Your task to perform on an android device: Do I have any events today? Image 0: 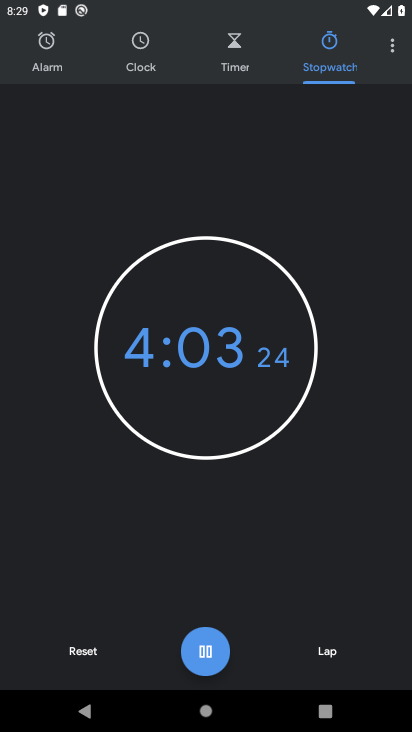
Step 0: press home button
Your task to perform on an android device: Do I have any events today? Image 1: 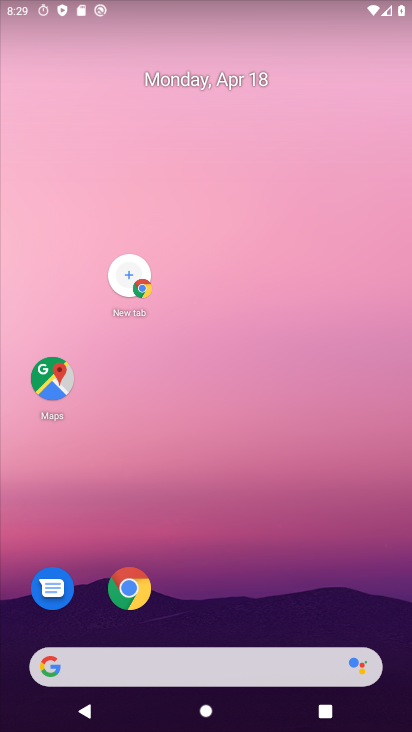
Step 1: drag from (272, 591) to (206, 185)
Your task to perform on an android device: Do I have any events today? Image 2: 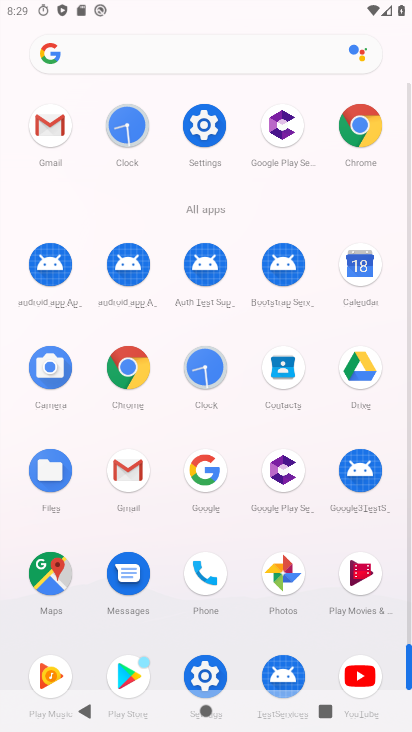
Step 2: click (363, 274)
Your task to perform on an android device: Do I have any events today? Image 3: 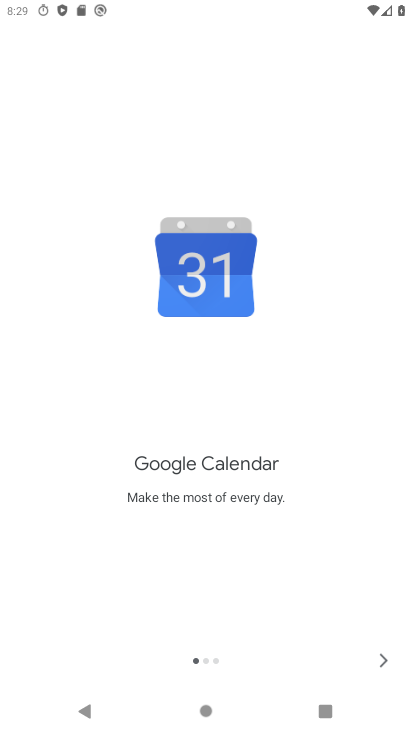
Step 3: click (381, 651)
Your task to perform on an android device: Do I have any events today? Image 4: 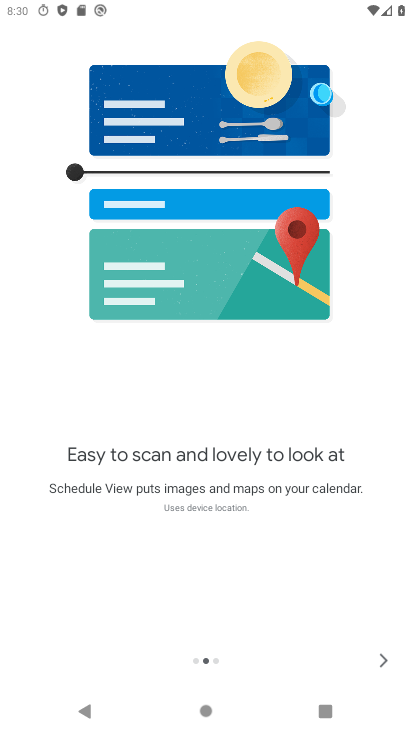
Step 4: click (386, 667)
Your task to perform on an android device: Do I have any events today? Image 5: 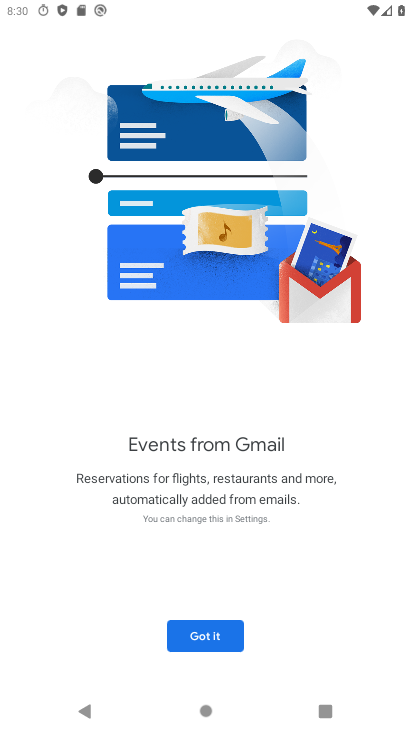
Step 5: click (228, 629)
Your task to perform on an android device: Do I have any events today? Image 6: 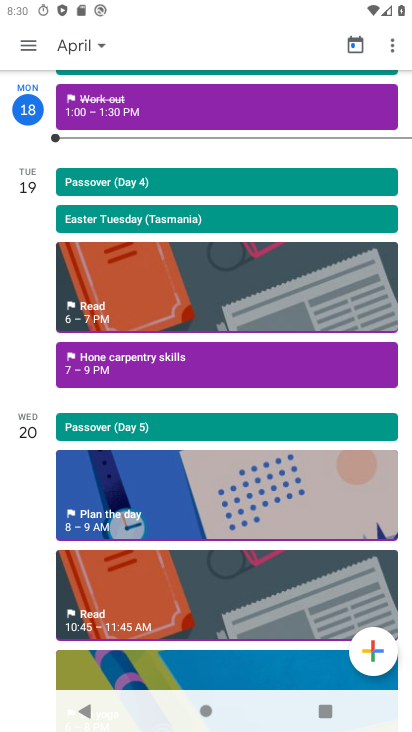
Step 6: drag from (185, 89) to (163, 481)
Your task to perform on an android device: Do I have any events today? Image 7: 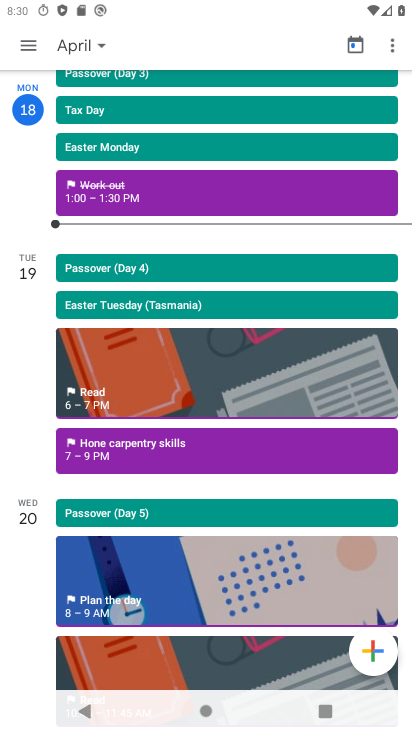
Step 7: drag from (275, 290) to (313, 531)
Your task to perform on an android device: Do I have any events today? Image 8: 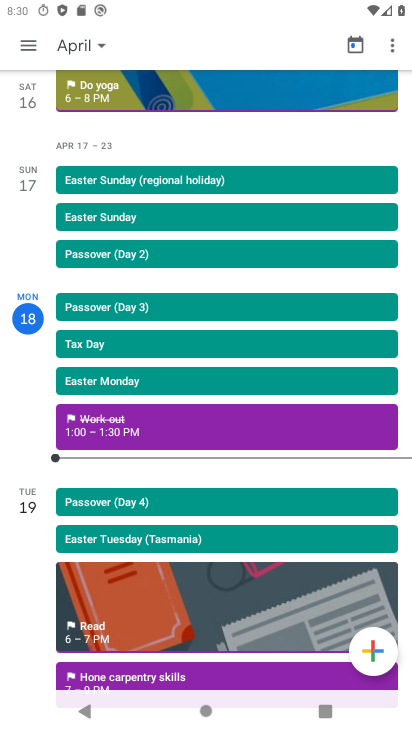
Step 8: drag from (224, 203) to (262, 585)
Your task to perform on an android device: Do I have any events today? Image 9: 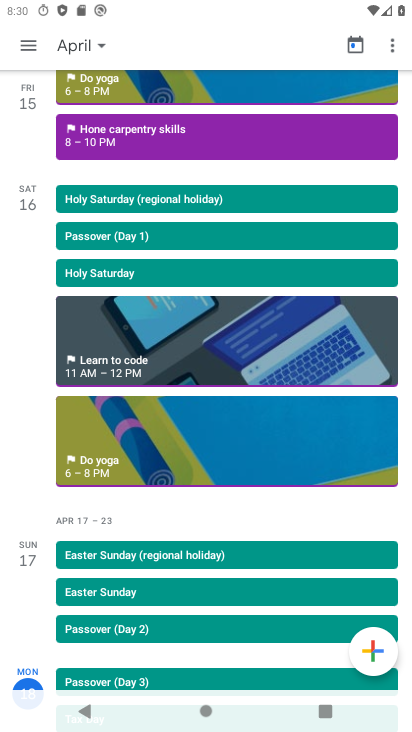
Step 9: drag from (246, 284) to (271, 583)
Your task to perform on an android device: Do I have any events today? Image 10: 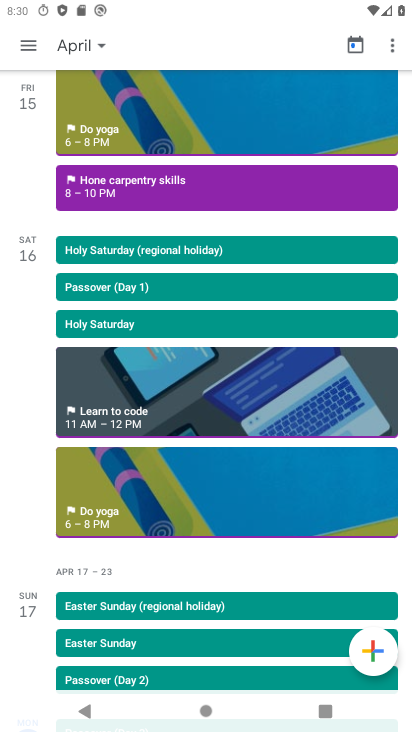
Step 10: drag from (278, 163) to (275, 568)
Your task to perform on an android device: Do I have any events today? Image 11: 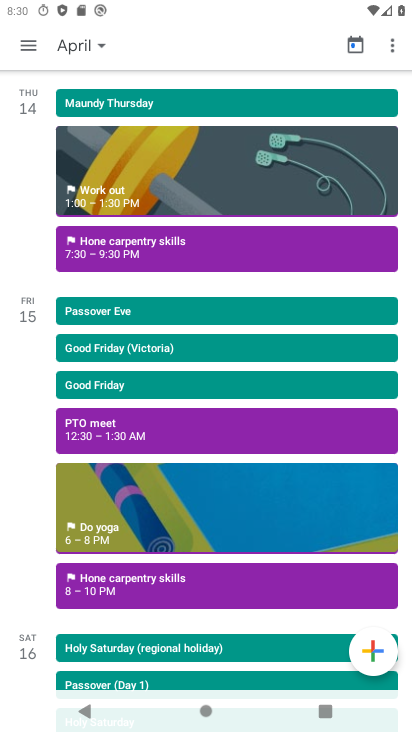
Step 11: drag from (277, 164) to (249, 560)
Your task to perform on an android device: Do I have any events today? Image 12: 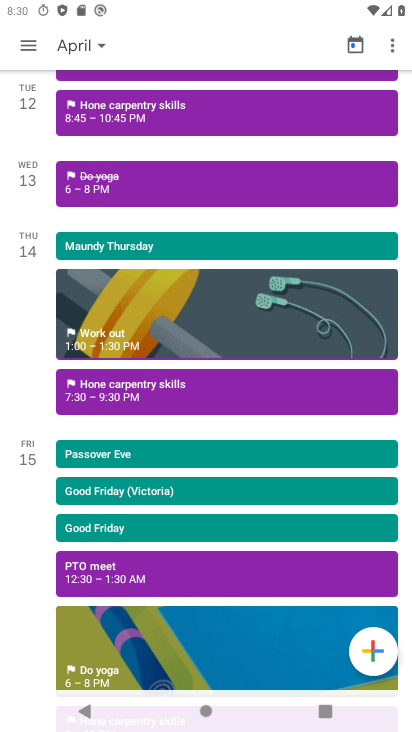
Step 12: drag from (281, 293) to (271, 585)
Your task to perform on an android device: Do I have any events today? Image 13: 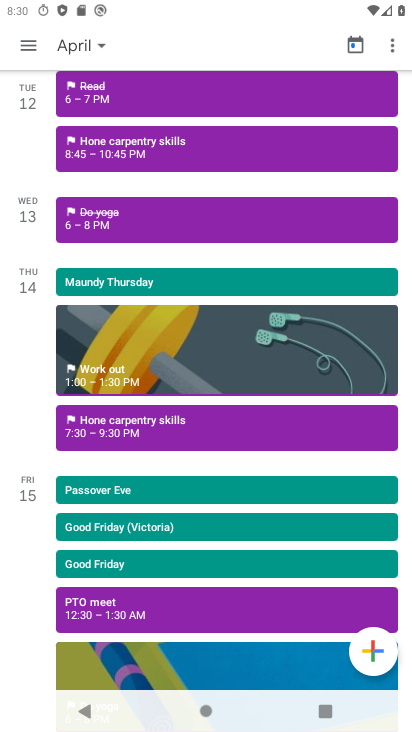
Step 13: click (74, 42)
Your task to perform on an android device: Do I have any events today? Image 14: 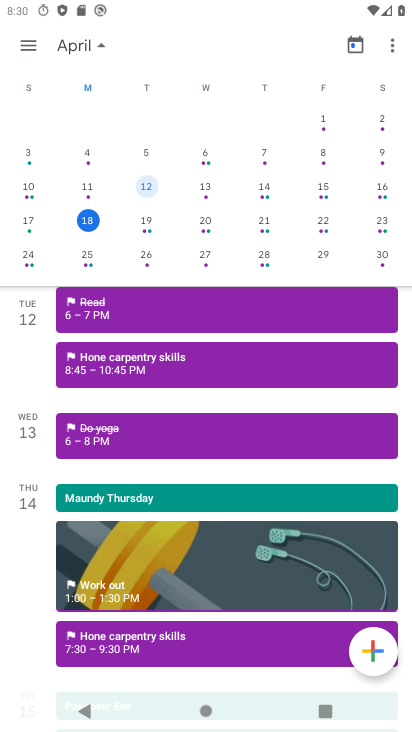
Step 14: click (78, 215)
Your task to perform on an android device: Do I have any events today? Image 15: 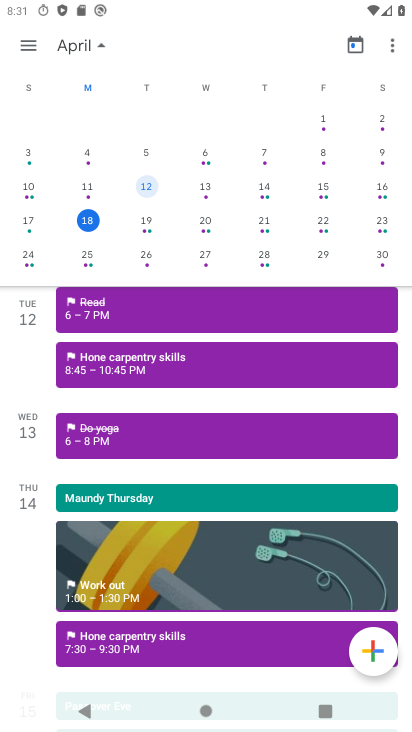
Step 15: click (85, 221)
Your task to perform on an android device: Do I have any events today? Image 16: 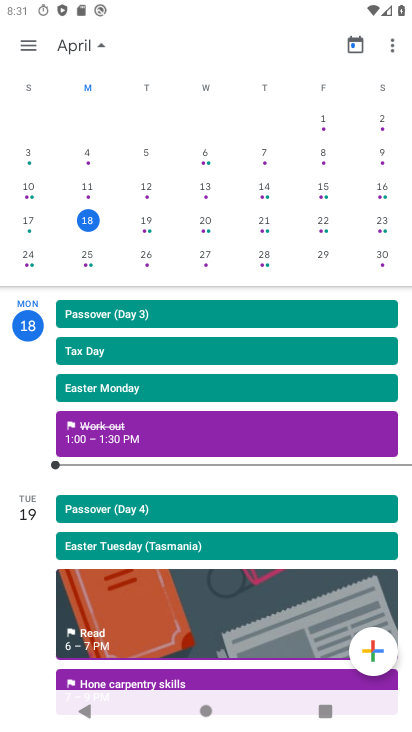
Step 16: task complete